Your task to perform on an android device: open sync settings in chrome Image 0: 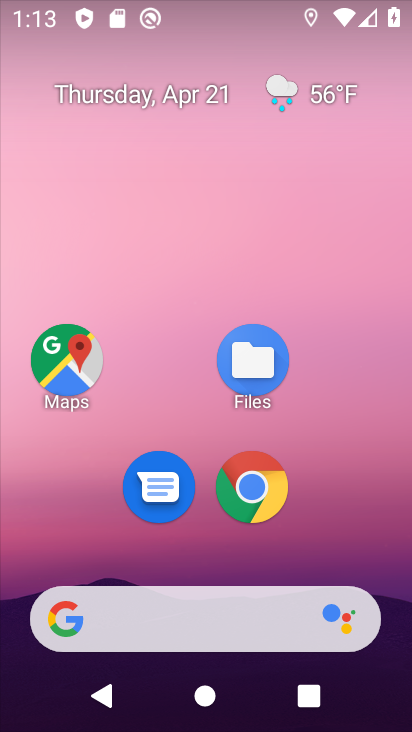
Step 0: drag from (366, 523) to (374, 189)
Your task to perform on an android device: open sync settings in chrome Image 1: 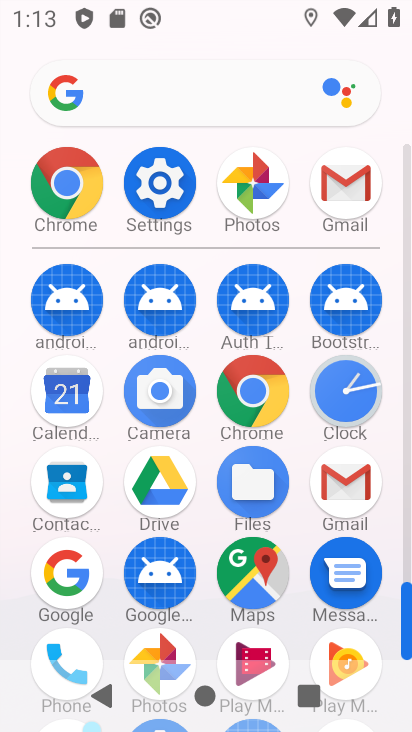
Step 1: click (263, 394)
Your task to perform on an android device: open sync settings in chrome Image 2: 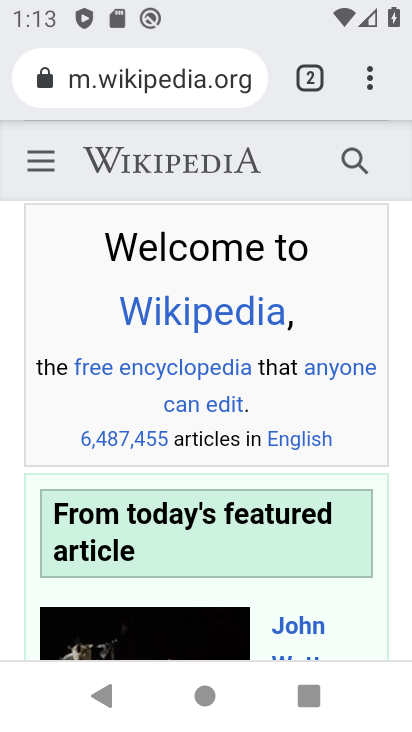
Step 2: drag from (379, 92) to (239, 553)
Your task to perform on an android device: open sync settings in chrome Image 3: 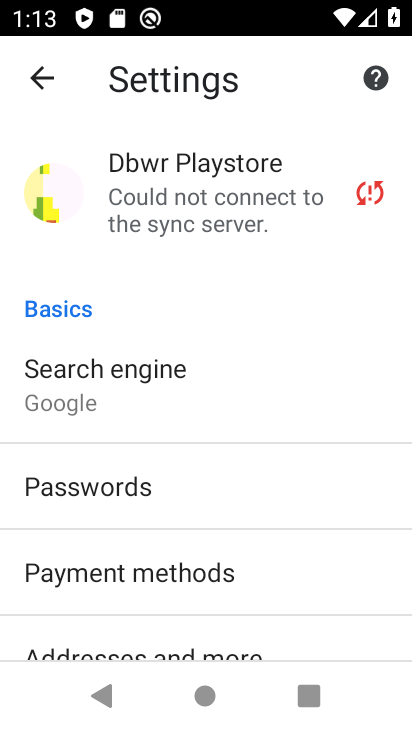
Step 3: drag from (311, 580) to (287, 355)
Your task to perform on an android device: open sync settings in chrome Image 4: 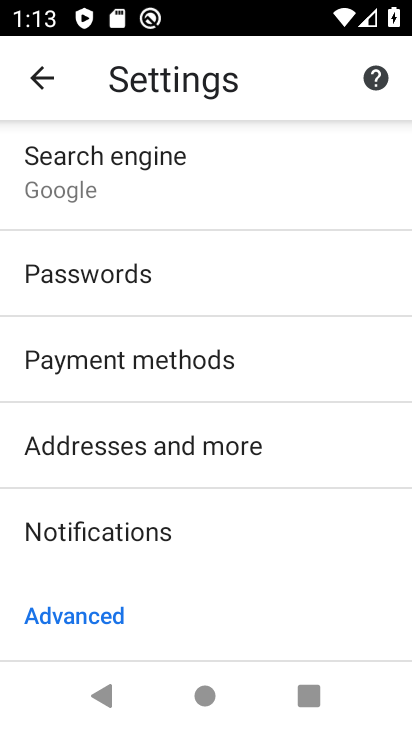
Step 4: drag from (297, 524) to (291, 307)
Your task to perform on an android device: open sync settings in chrome Image 5: 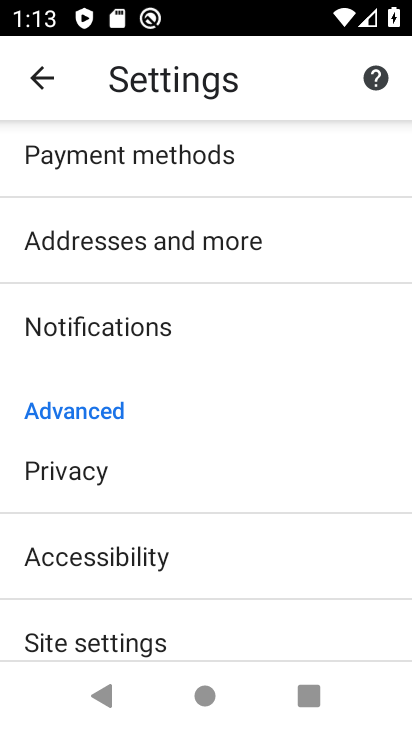
Step 5: drag from (275, 592) to (317, 218)
Your task to perform on an android device: open sync settings in chrome Image 6: 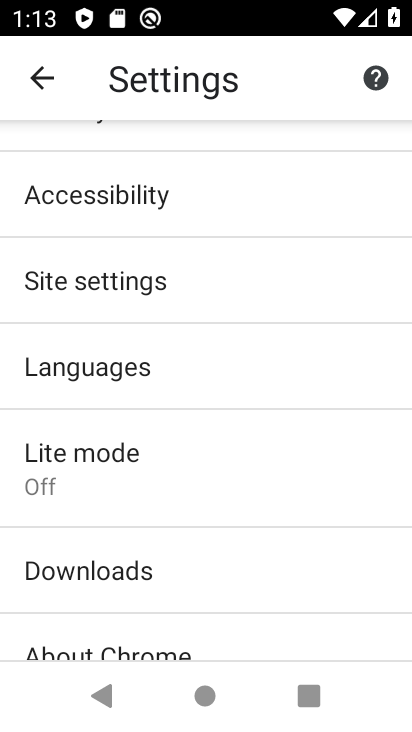
Step 6: drag from (273, 573) to (263, 234)
Your task to perform on an android device: open sync settings in chrome Image 7: 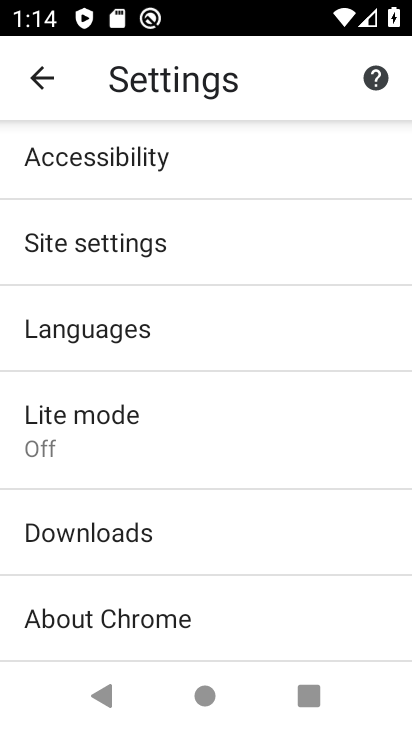
Step 7: click (164, 236)
Your task to perform on an android device: open sync settings in chrome Image 8: 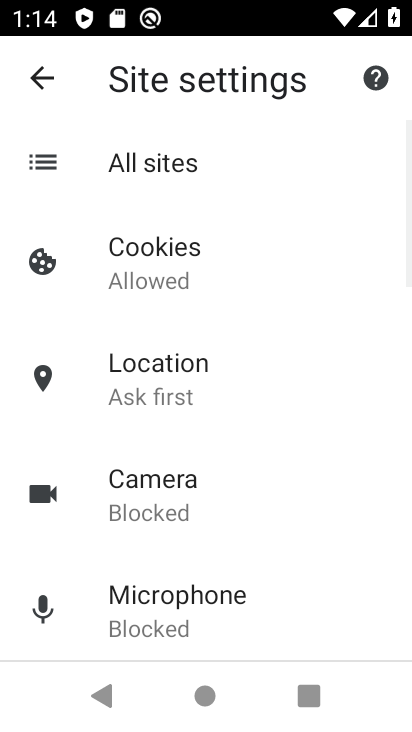
Step 8: drag from (269, 597) to (267, 307)
Your task to perform on an android device: open sync settings in chrome Image 9: 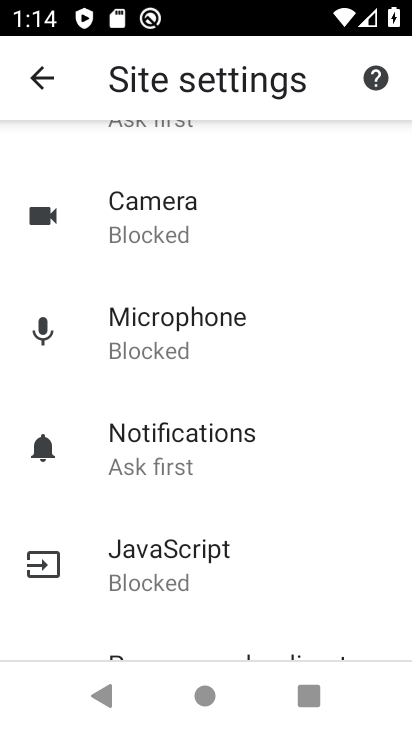
Step 9: drag from (274, 564) to (274, 314)
Your task to perform on an android device: open sync settings in chrome Image 10: 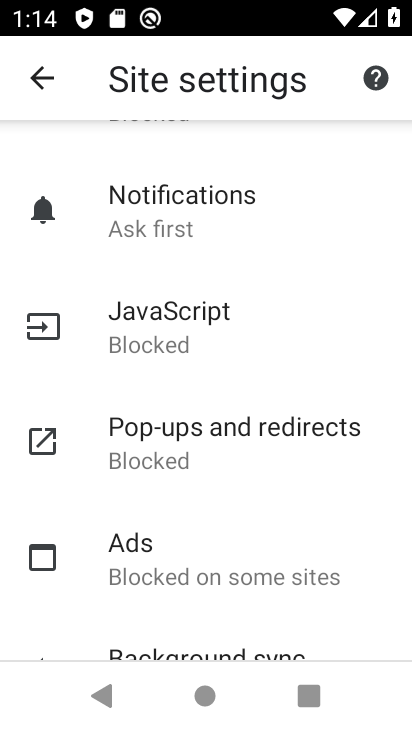
Step 10: drag from (303, 605) to (269, 304)
Your task to perform on an android device: open sync settings in chrome Image 11: 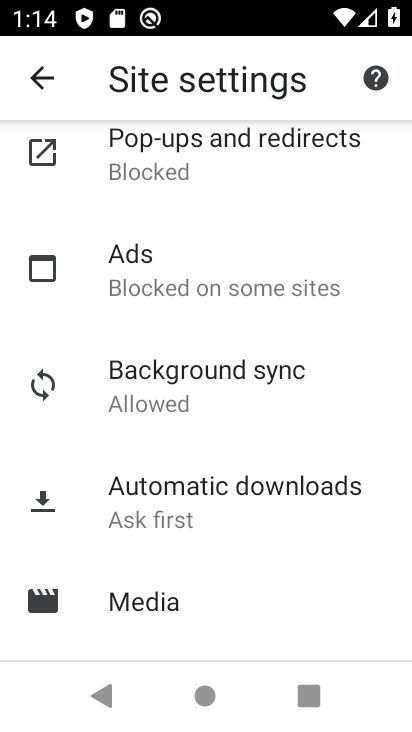
Step 11: click (227, 386)
Your task to perform on an android device: open sync settings in chrome Image 12: 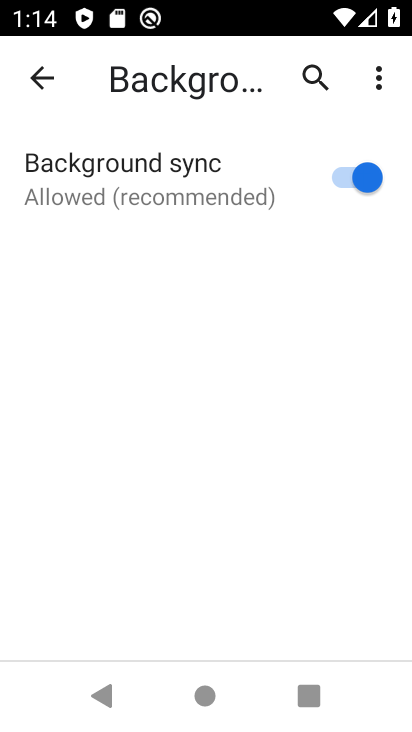
Step 12: task complete